Your task to perform on an android device: Open Chrome and go to settings Image 0: 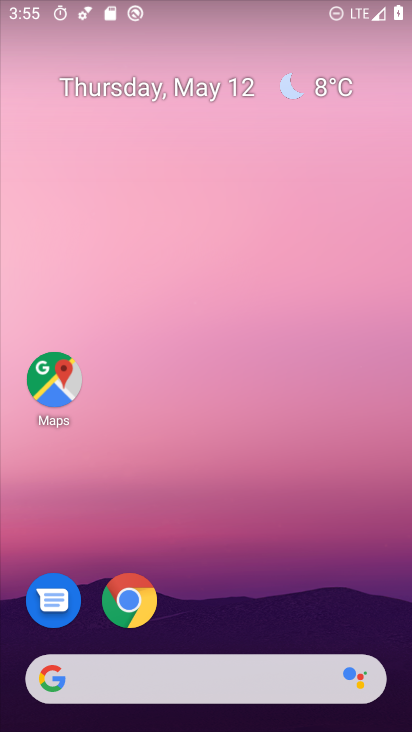
Step 0: click (126, 600)
Your task to perform on an android device: Open Chrome and go to settings Image 1: 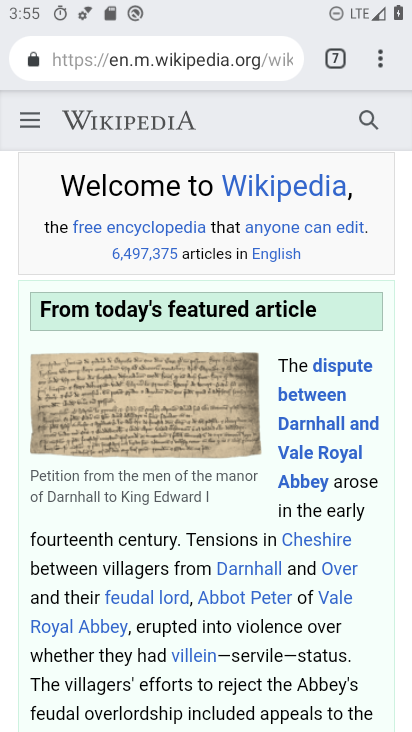
Step 1: click (378, 64)
Your task to perform on an android device: Open Chrome and go to settings Image 2: 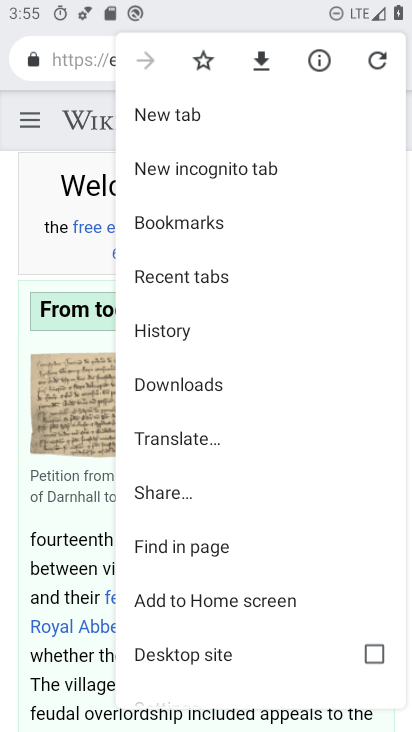
Step 2: drag from (177, 619) to (207, 217)
Your task to perform on an android device: Open Chrome and go to settings Image 3: 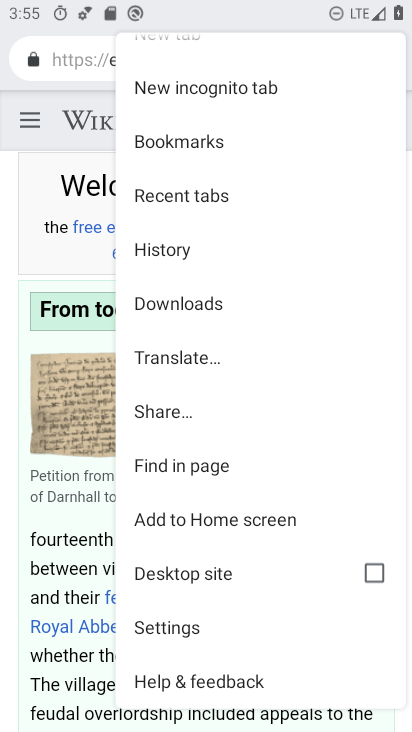
Step 3: click (172, 625)
Your task to perform on an android device: Open Chrome and go to settings Image 4: 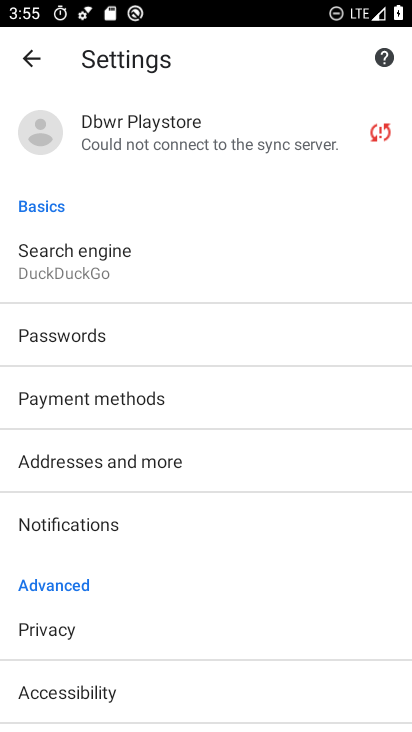
Step 4: task complete